Your task to perform on an android device: Show me recent news Image 0: 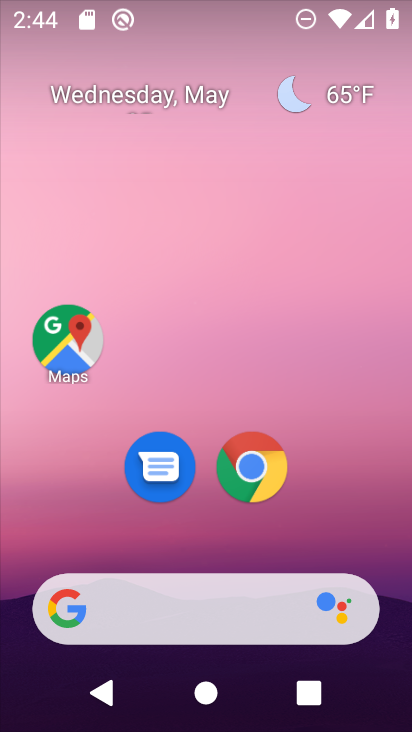
Step 0: click (223, 471)
Your task to perform on an android device: Show me recent news Image 1: 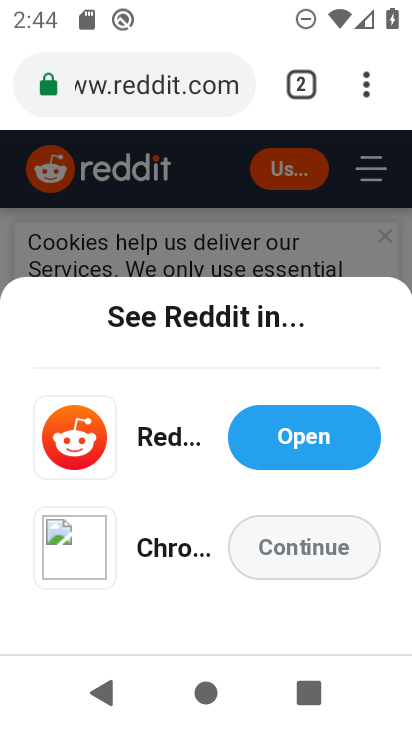
Step 1: click (355, 71)
Your task to perform on an android device: Show me recent news Image 2: 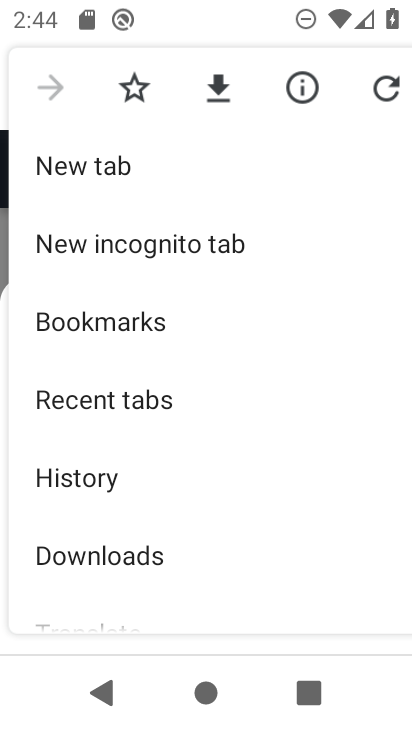
Step 2: click (166, 168)
Your task to perform on an android device: Show me recent news Image 3: 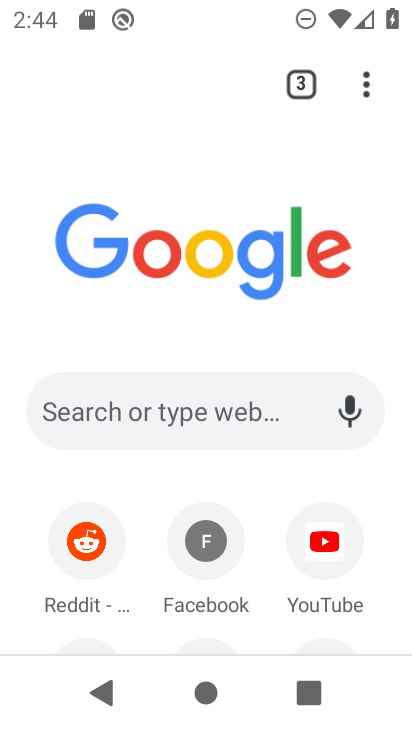
Step 3: click (188, 403)
Your task to perform on an android device: Show me recent news Image 4: 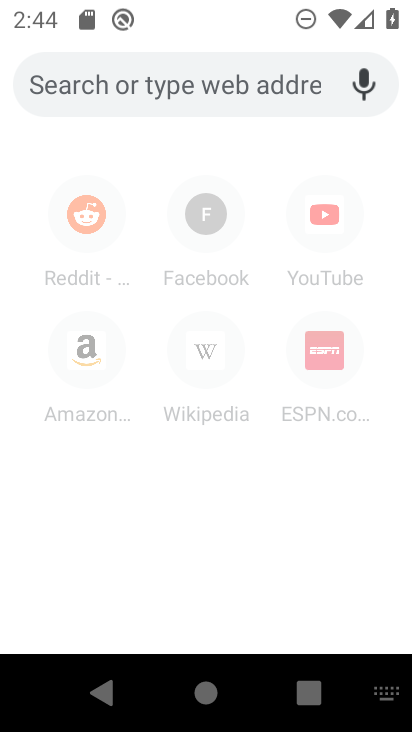
Step 4: type "Show me recent news"
Your task to perform on an android device: Show me recent news Image 5: 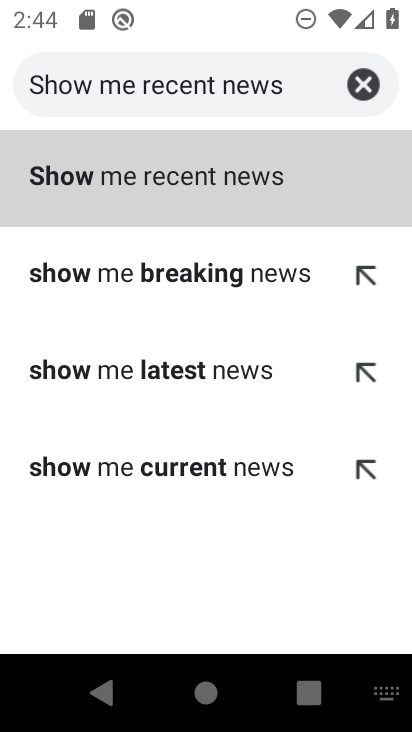
Step 5: click (178, 188)
Your task to perform on an android device: Show me recent news Image 6: 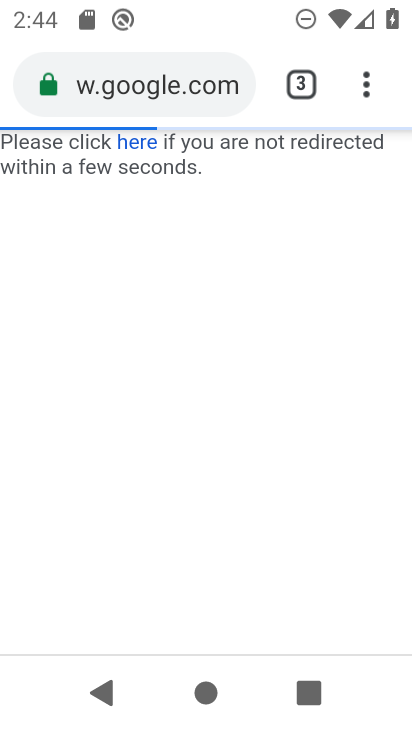
Step 6: task complete